Your task to perform on an android device: stop showing notifications on the lock screen Image 0: 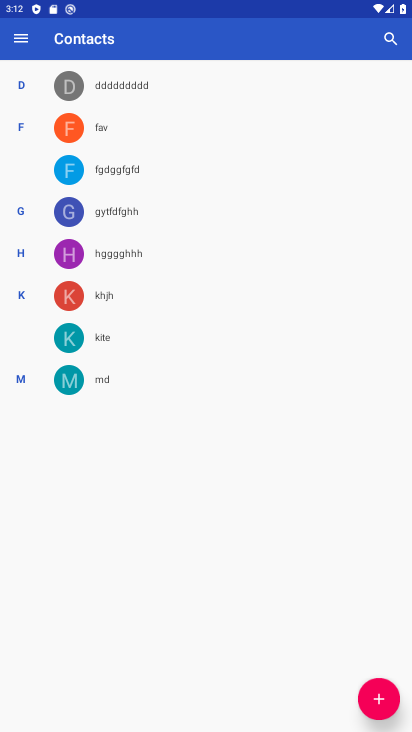
Step 0: press home button
Your task to perform on an android device: stop showing notifications on the lock screen Image 1: 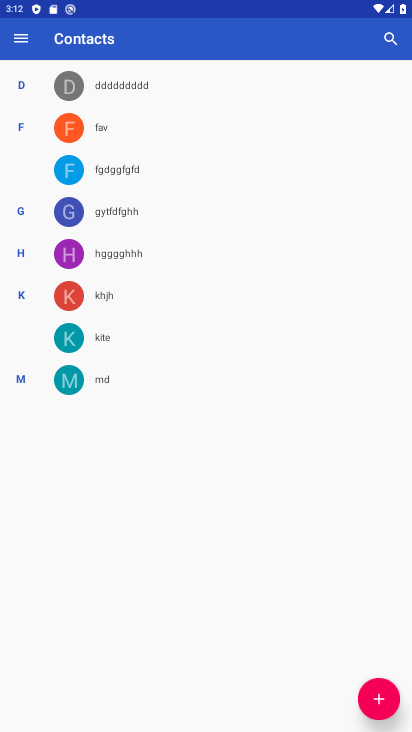
Step 1: drag from (235, 572) to (246, 127)
Your task to perform on an android device: stop showing notifications on the lock screen Image 2: 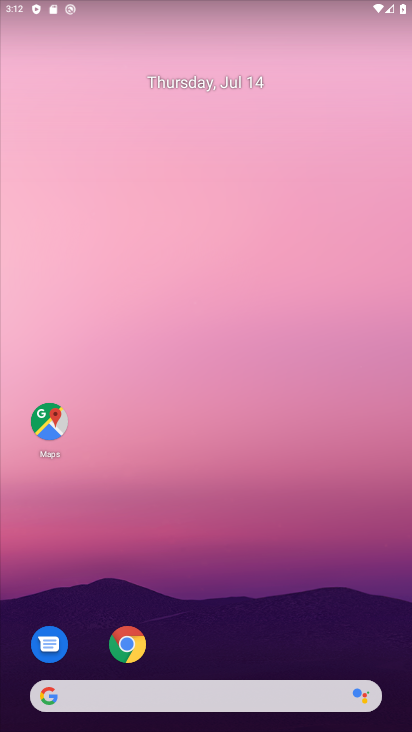
Step 2: drag from (280, 537) to (278, 257)
Your task to perform on an android device: stop showing notifications on the lock screen Image 3: 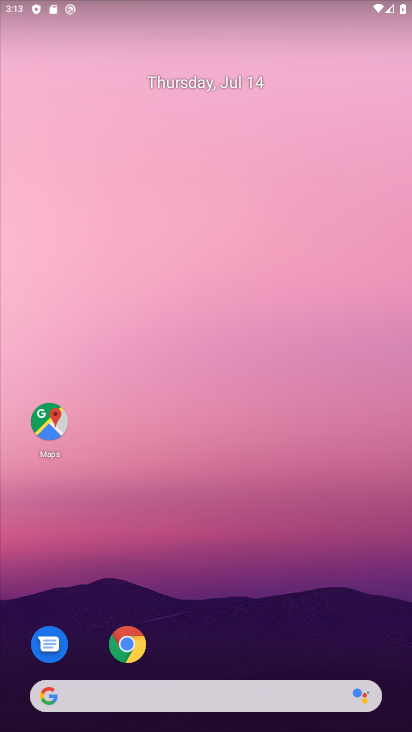
Step 3: drag from (309, 636) to (291, 272)
Your task to perform on an android device: stop showing notifications on the lock screen Image 4: 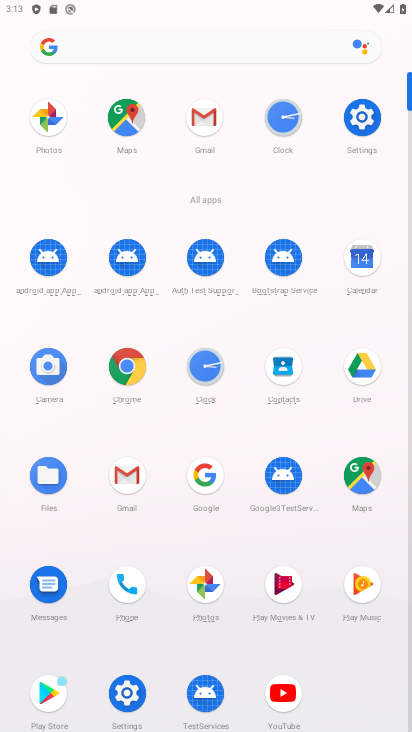
Step 4: click (128, 689)
Your task to perform on an android device: stop showing notifications on the lock screen Image 5: 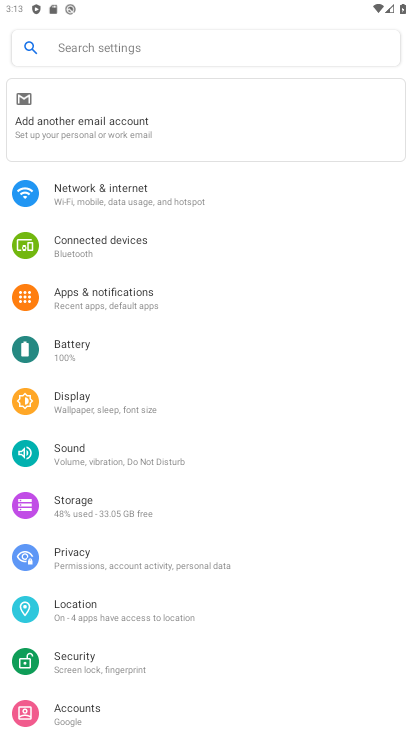
Step 5: click (80, 296)
Your task to perform on an android device: stop showing notifications on the lock screen Image 6: 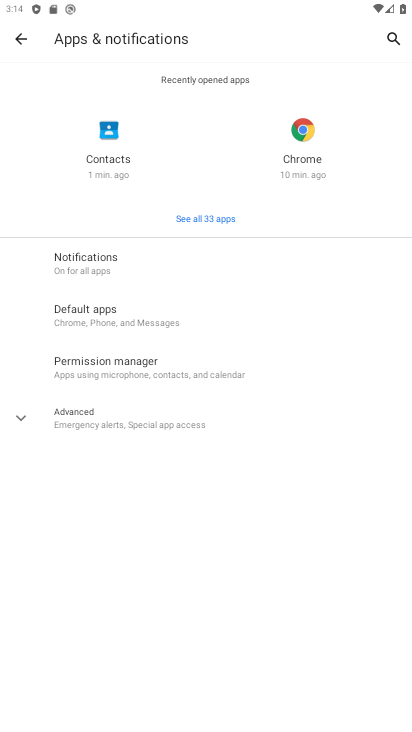
Step 6: click (101, 411)
Your task to perform on an android device: stop showing notifications on the lock screen Image 7: 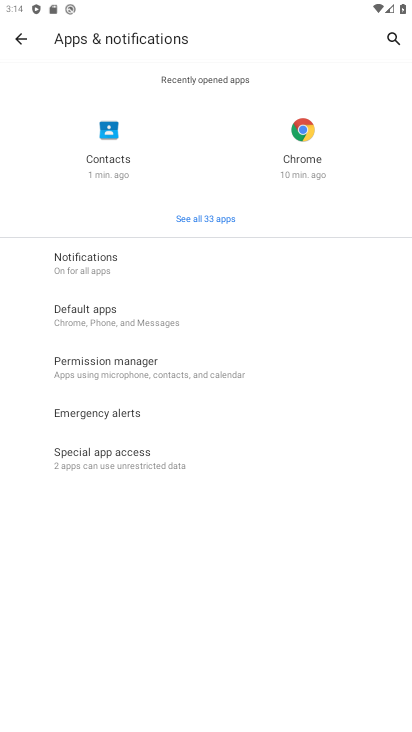
Step 7: click (118, 268)
Your task to perform on an android device: stop showing notifications on the lock screen Image 8: 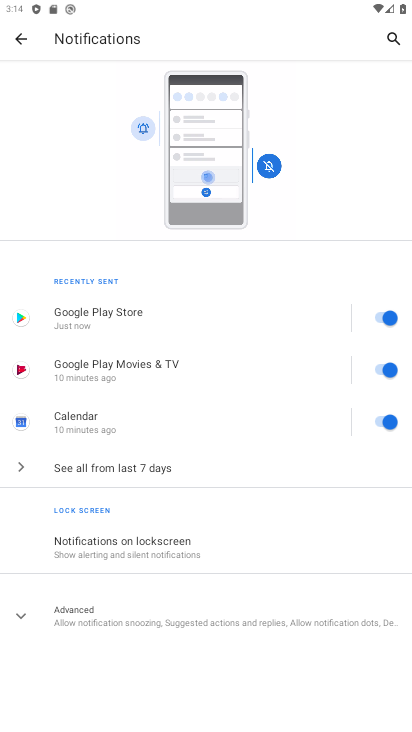
Step 8: click (103, 546)
Your task to perform on an android device: stop showing notifications on the lock screen Image 9: 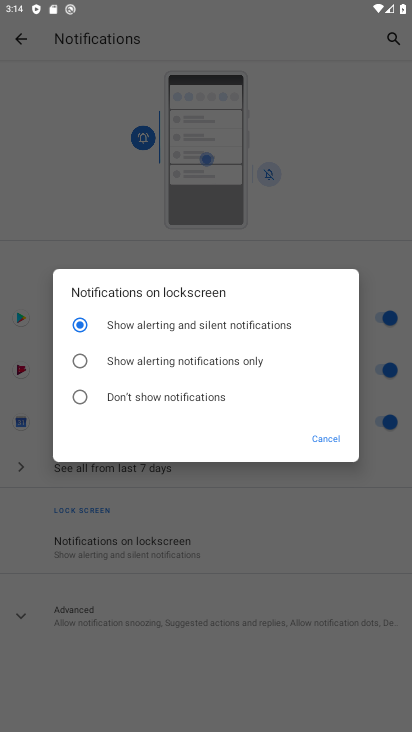
Step 9: click (113, 408)
Your task to perform on an android device: stop showing notifications on the lock screen Image 10: 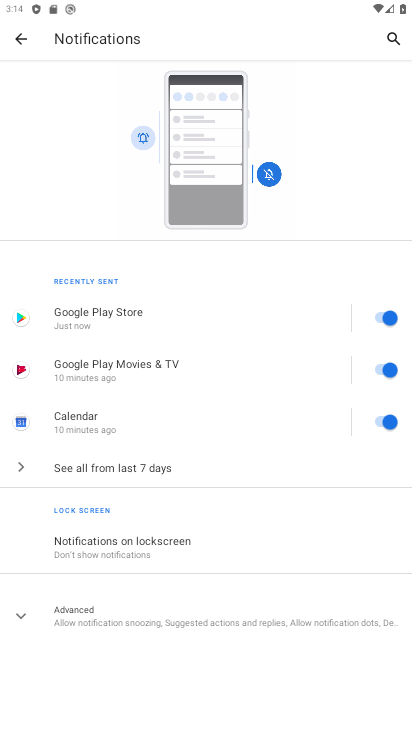
Step 10: task complete